Your task to perform on an android device: Show the shopping cart on bestbuy.com. Search for "amazon basics triple a" on bestbuy.com, select the first entry, and add it to the cart. Image 0: 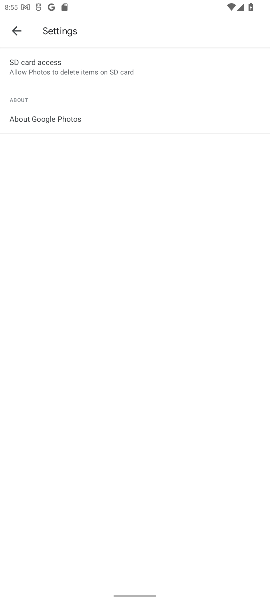
Step 0: press home button
Your task to perform on an android device: Show the shopping cart on bestbuy.com. Search for "amazon basics triple a" on bestbuy.com, select the first entry, and add it to the cart. Image 1: 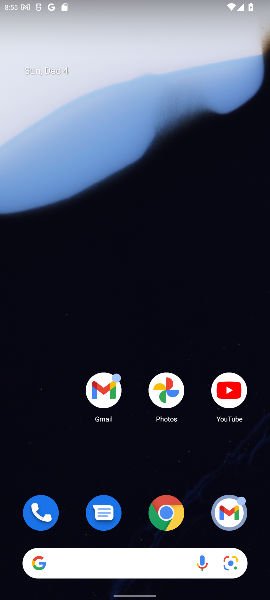
Step 1: click (169, 511)
Your task to perform on an android device: Show the shopping cart on bestbuy.com. Search for "amazon basics triple a" on bestbuy.com, select the first entry, and add it to the cart. Image 2: 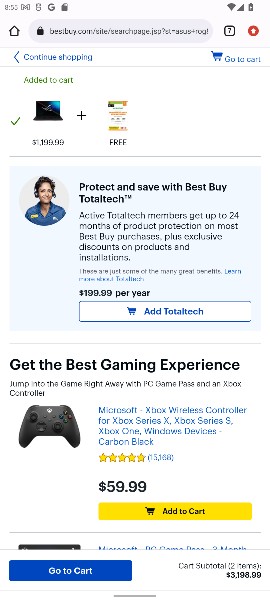
Step 2: click (65, 55)
Your task to perform on an android device: Show the shopping cart on bestbuy.com. Search for "amazon basics triple a" on bestbuy.com, select the first entry, and add it to the cart. Image 3: 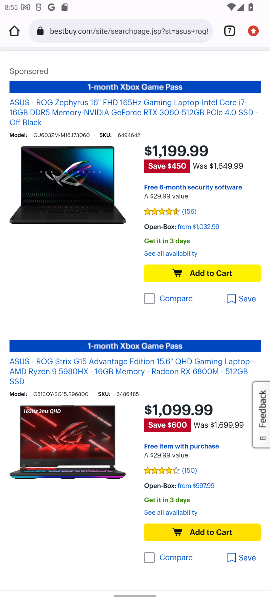
Step 3: drag from (142, 67) to (127, 320)
Your task to perform on an android device: Show the shopping cart on bestbuy.com. Search for "amazon basics triple a" on bestbuy.com, select the first entry, and add it to the cart. Image 4: 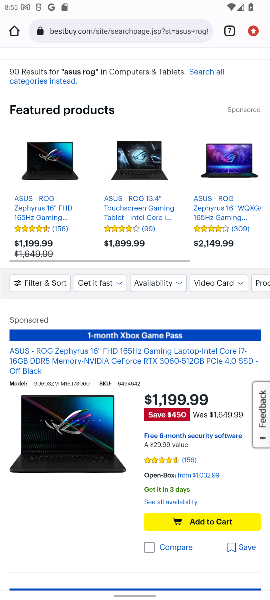
Step 4: drag from (141, 56) to (127, 278)
Your task to perform on an android device: Show the shopping cart on bestbuy.com. Search for "amazon basics triple a" on bestbuy.com, select the first entry, and add it to the cart. Image 5: 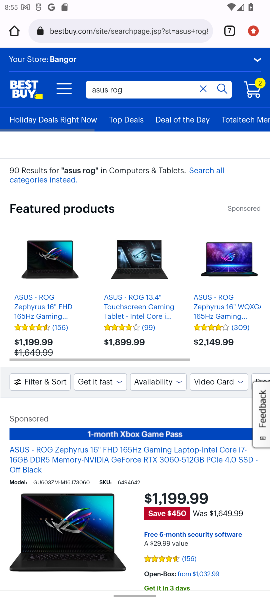
Step 5: click (204, 88)
Your task to perform on an android device: Show the shopping cart on bestbuy.com. Search for "amazon basics triple a" on bestbuy.com, select the first entry, and add it to the cart. Image 6: 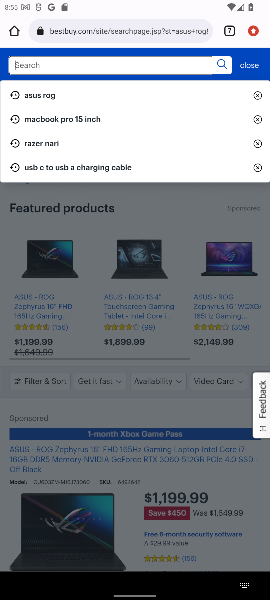
Step 6: type "amazon basics triple a"
Your task to perform on an android device: Show the shopping cart on bestbuy.com. Search for "amazon basics triple a" on bestbuy.com, select the first entry, and add it to the cart. Image 7: 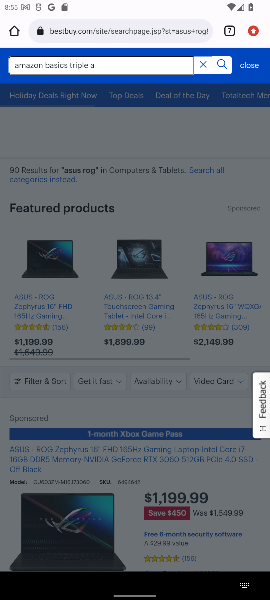
Step 7: click (221, 61)
Your task to perform on an android device: Show the shopping cart on bestbuy.com. Search for "amazon basics triple a" on bestbuy.com, select the first entry, and add it to the cart. Image 8: 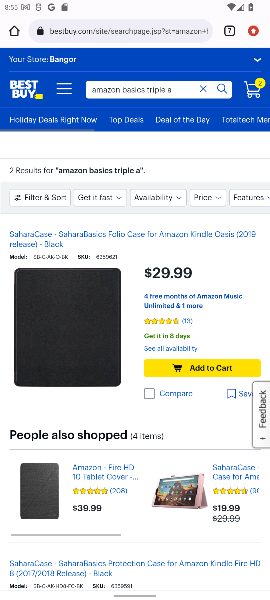
Step 8: drag from (87, 542) to (136, 285)
Your task to perform on an android device: Show the shopping cart on bestbuy.com. Search for "amazon basics triple a" on bestbuy.com, select the first entry, and add it to the cart. Image 9: 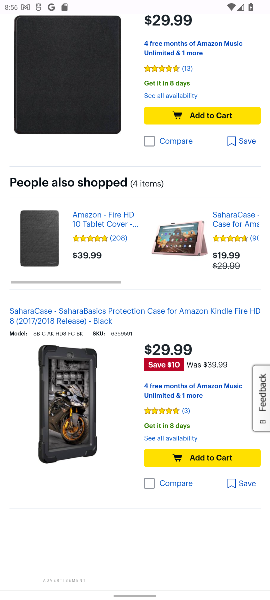
Step 9: drag from (106, 508) to (193, 166)
Your task to perform on an android device: Show the shopping cart on bestbuy.com. Search for "amazon basics triple a" on bestbuy.com, select the first entry, and add it to the cart. Image 10: 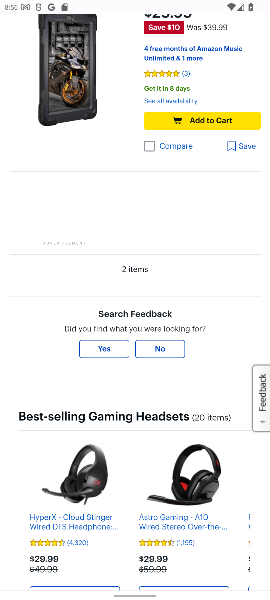
Step 10: drag from (139, 429) to (211, 170)
Your task to perform on an android device: Show the shopping cart on bestbuy.com. Search for "amazon basics triple a" on bestbuy.com, select the first entry, and add it to the cart. Image 11: 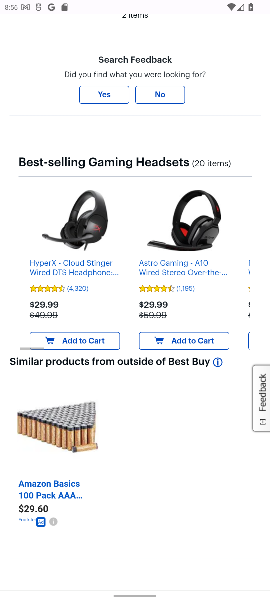
Step 11: click (47, 491)
Your task to perform on an android device: Show the shopping cart on bestbuy.com. Search for "amazon basics triple a" on bestbuy.com, select the first entry, and add it to the cart. Image 12: 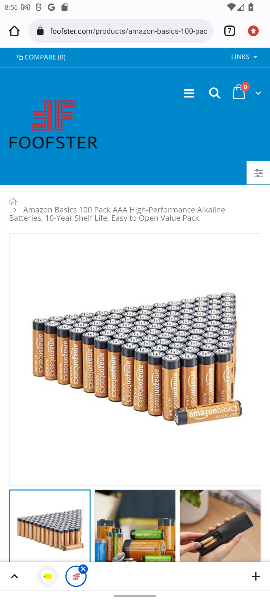
Step 12: task complete